Your task to perform on an android device: delete a single message in the gmail app Image 0: 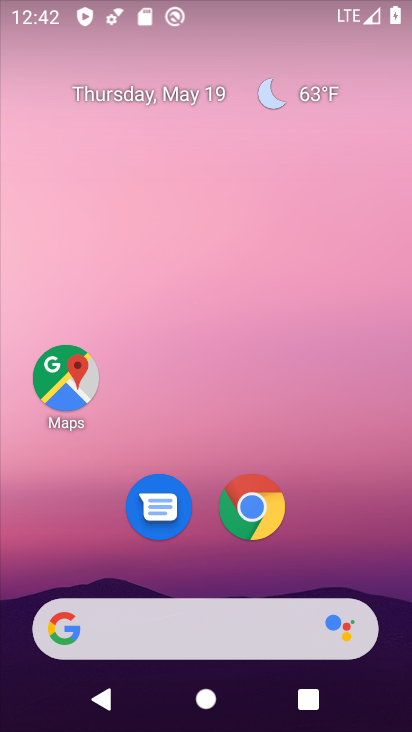
Step 0: drag from (233, 590) to (278, 280)
Your task to perform on an android device: delete a single message in the gmail app Image 1: 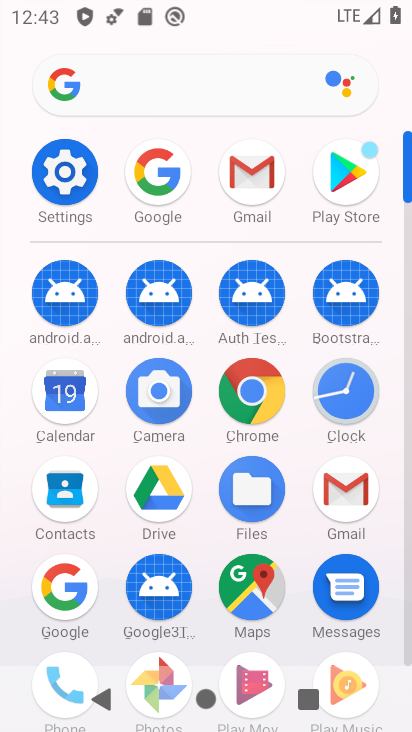
Step 1: click (233, 180)
Your task to perform on an android device: delete a single message in the gmail app Image 2: 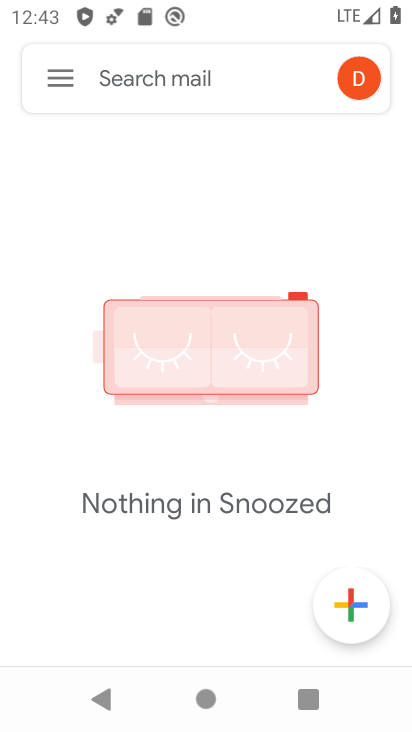
Step 2: click (59, 78)
Your task to perform on an android device: delete a single message in the gmail app Image 3: 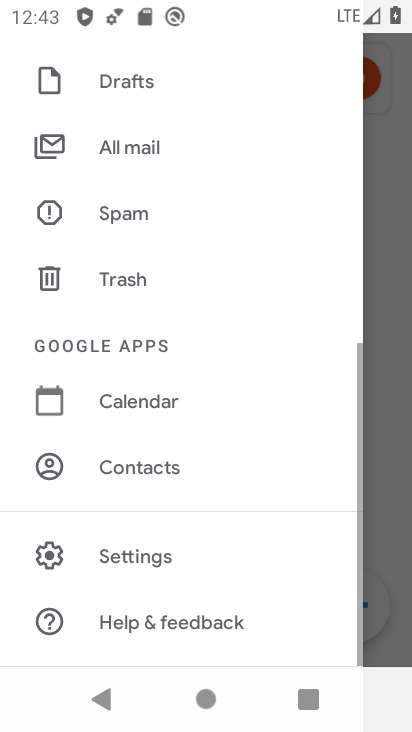
Step 3: drag from (160, 98) to (174, 536)
Your task to perform on an android device: delete a single message in the gmail app Image 4: 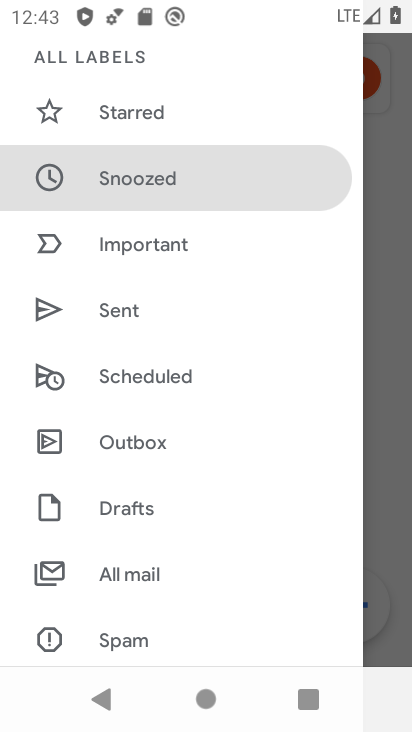
Step 4: drag from (165, 90) to (217, 499)
Your task to perform on an android device: delete a single message in the gmail app Image 5: 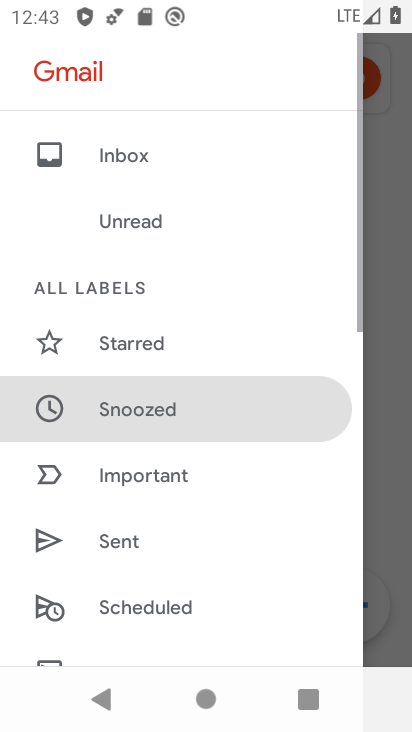
Step 5: click (136, 161)
Your task to perform on an android device: delete a single message in the gmail app Image 6: 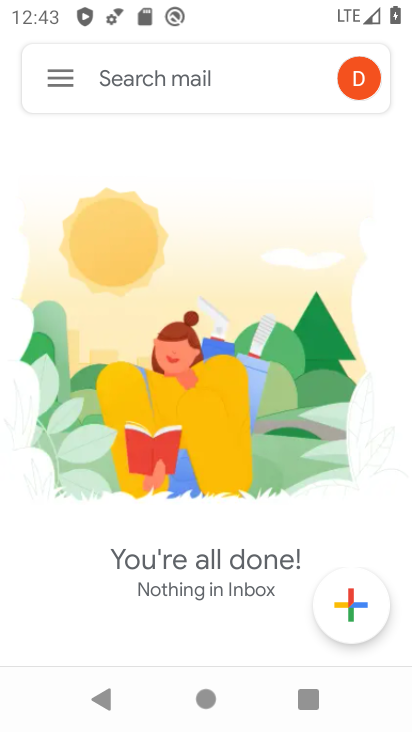
Step 6: task complete